Your task to perform on an android device: What's the weather going to be tomorrow? Image 0: 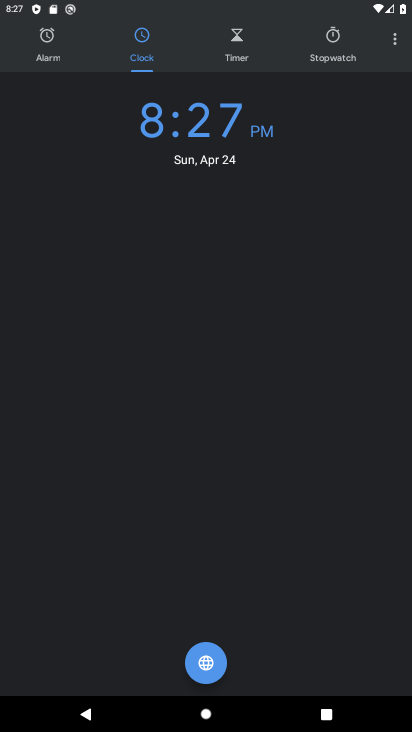
Step 0: press home button
Your task to perform on an android device: What's the weather going to be tomorrow? Image 1: 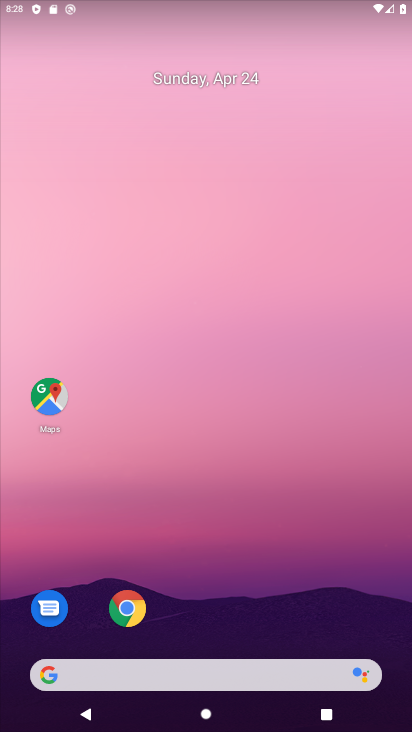
Step 1: drag from (259, 700) to (284, 247)
Your task to perform on an android device: What's the weather going to be tomorrow? Image 2: 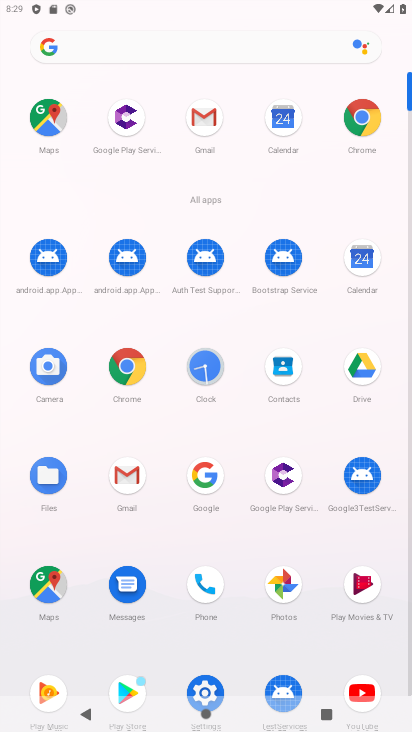
Step 2: click (357, 265)
Your task to perform on an android device: What's the weather going to be tomorrow? Image 3: 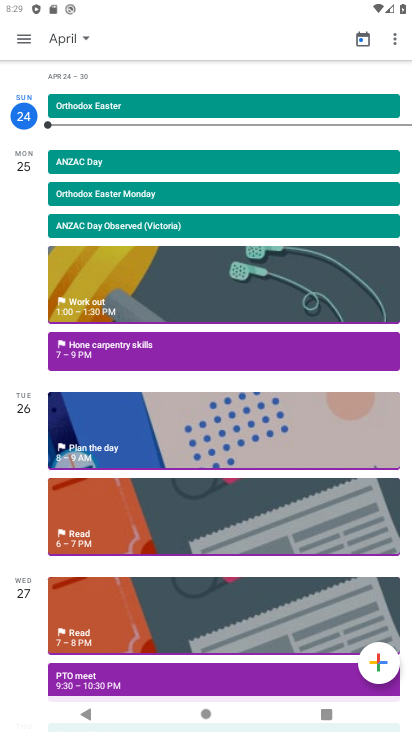
Step 3: press home button
Your task to perform on an android device: What's the weather going to be tomorrow? Image 4: 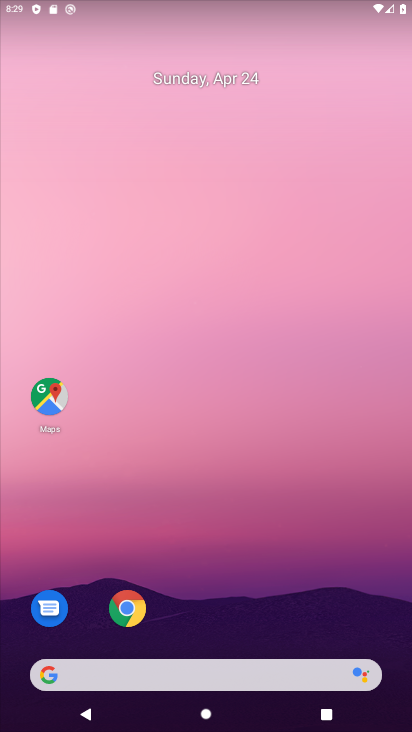
Step 4: drag from (266, 638) to (322, 134)
Your task to perform on an android device: What's the weather going to be tomorrow? Image 5: 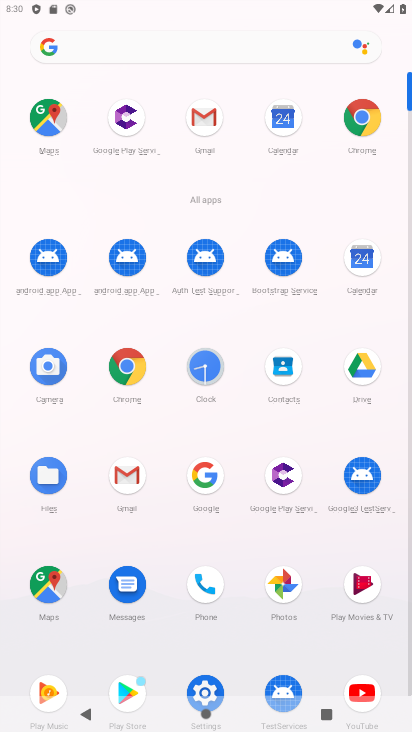
Step 5: click (198, 40)
Your task to perform on an android device: What's the weather going to be tomorrow? Image 6: 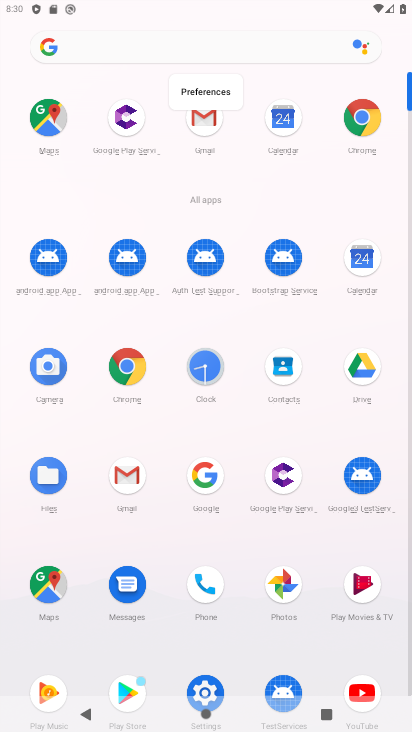
Step 6: click (150, 48)
Your task to perform on an android device: What's the weather going to be tomorrow? Image 7: 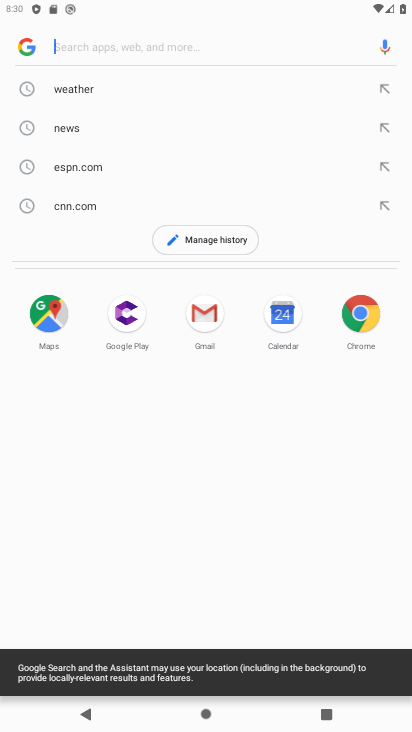
Step 7: click (135, 96)
Your task to perform on an android device: What's the weather going to be tomorrow? Image 8: 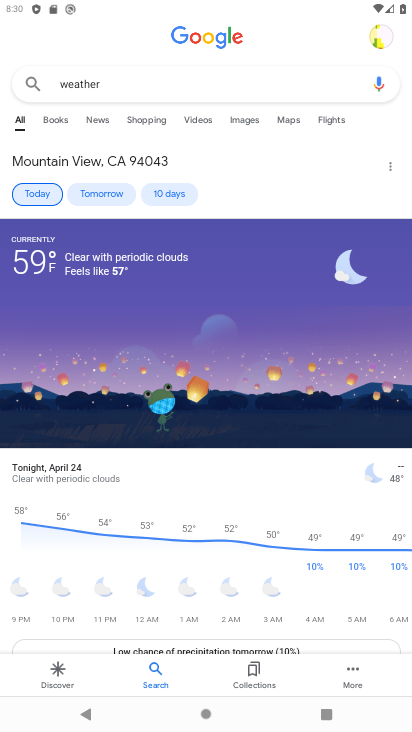
Step 8: task complete